Your task to perform on an android device: Do I have any events today? Image 0: 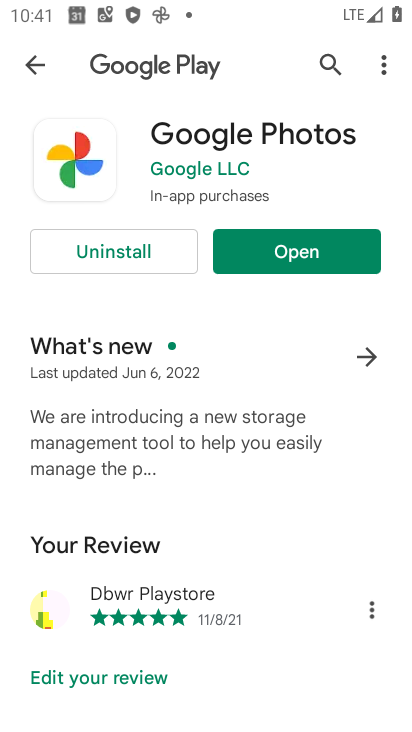
Step 0: press home button
Your task to perform on an android device: Do I have any events today? Image 1: 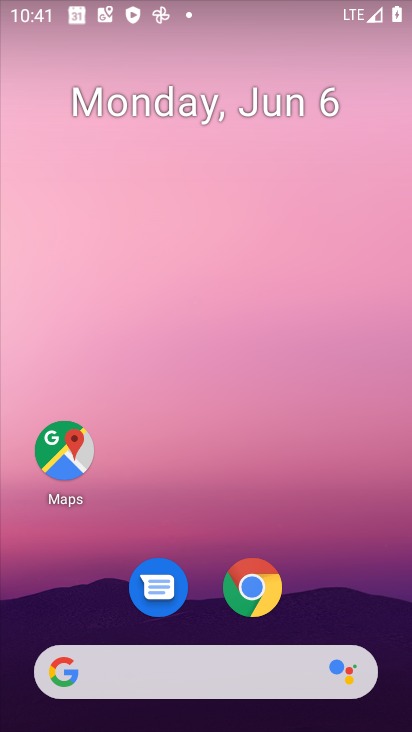
Step 1: click (302, 673)
Your task to perform on an android device: Do I have any events today? Image 2: 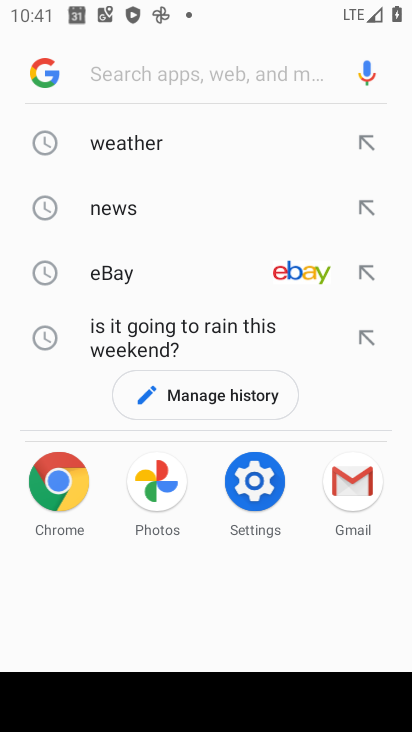
Step 2: press home button
Your task to perform on an android device: Do I have any events today? Image 3: 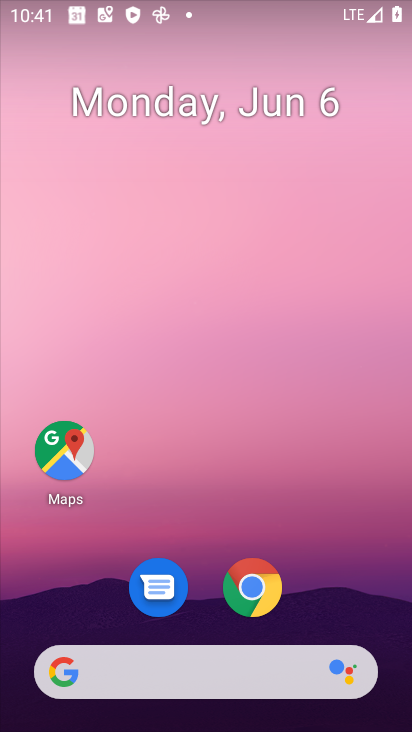
Step 3: drag from (275, 634) to (314, 108)
Your task to perform on an android device: Do I have any events today? Image 4: 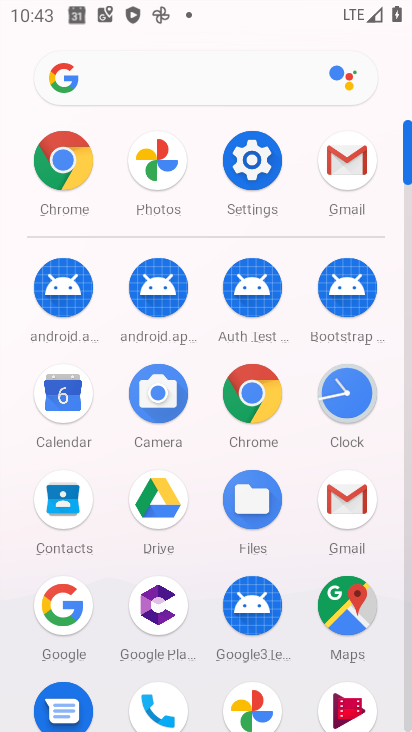
Step 4: click (53, 401)
Your task to perform on an android device: Do I have any events today? Image 5: 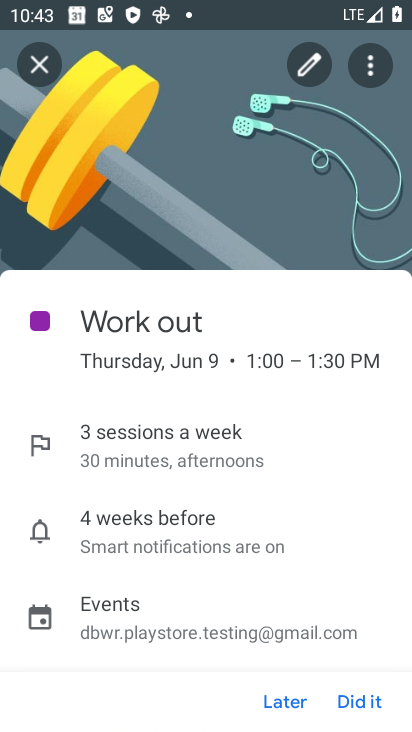
Step 5: click (296, 708)
Your task to perform on an android device: Do I have any events today? Image 6: 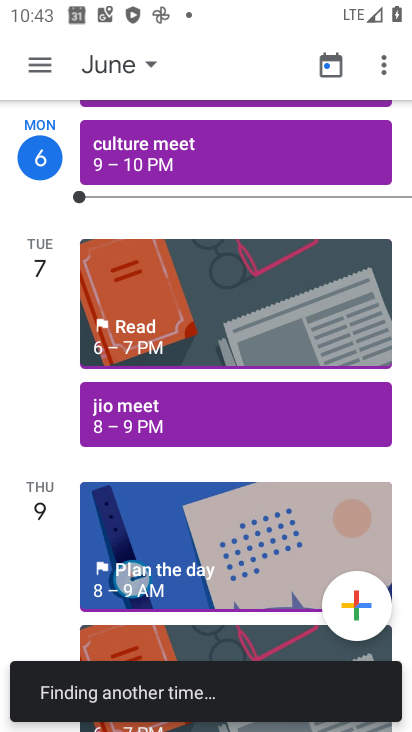
Step 6: task complete